Your task to perform on an android device: Show me the alarms in the clock app Image 0: 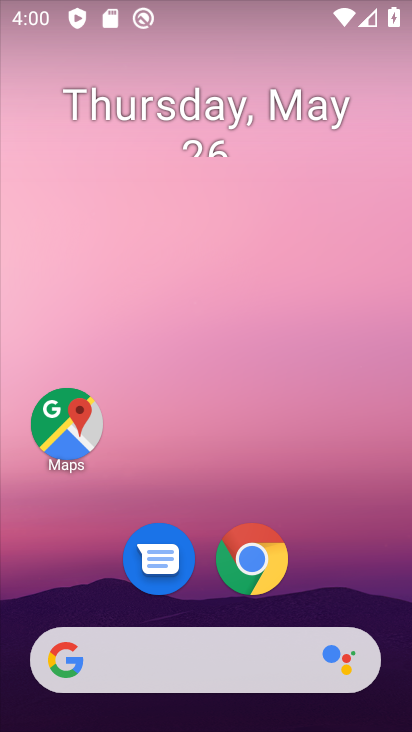
Step 0: drag from (308, 322) to (184, 13)
Your task to perform on an android device: Show me the alarms in the clock app Image 1: 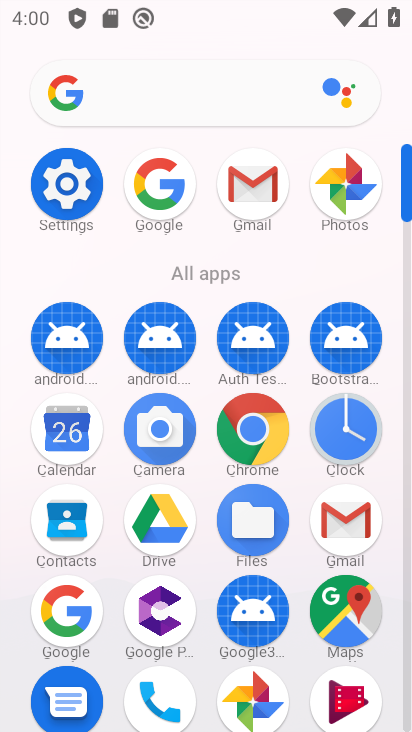
Step 1: click (353, 427)
Your task to perform on an android device: Show me the alarms in the clock app Image 2: 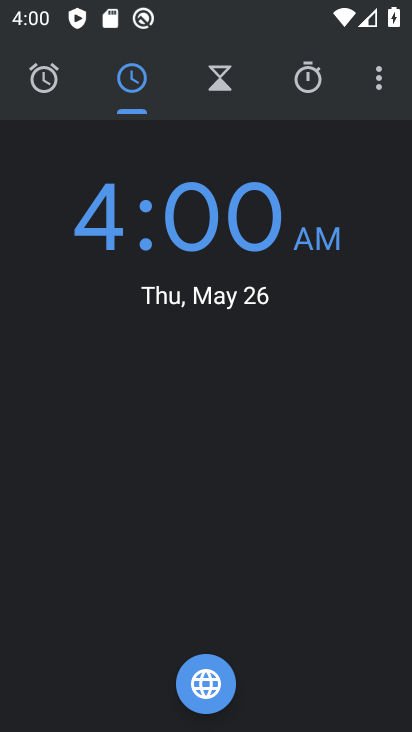
Step 2: click (30, 92)
Your task to perform on an android device: Show me the alarms in the clock app Image 3: 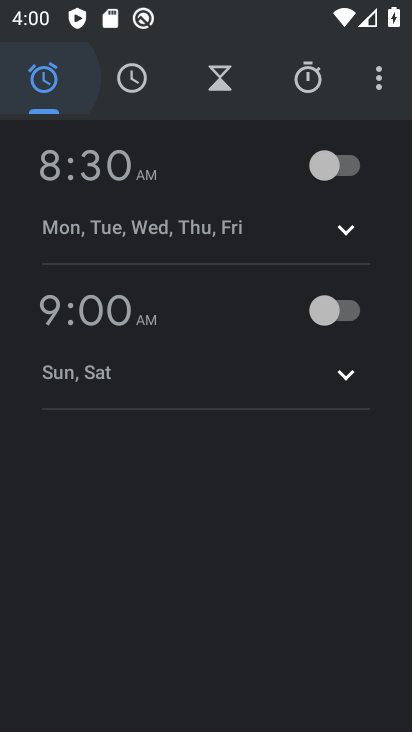
Step 3: task complete